Your task to perform on an android device: toggle airplane mode Image 0: 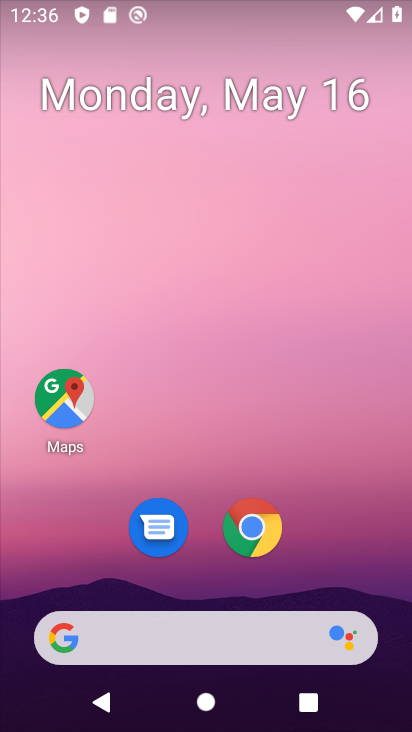
Step 0: drag from (207, 587) to (279, 220)
Your task to perform on an android device: toggle airplane mode Image 1: 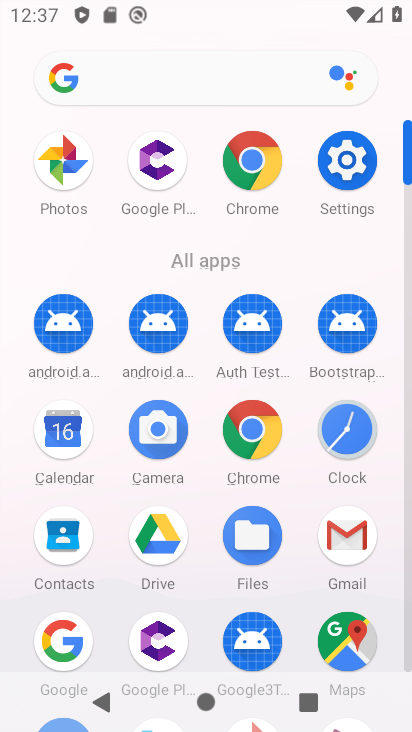
Step 1: click (352, 153)
Your task to perform on an android device: toggle airplane mode Image 2: 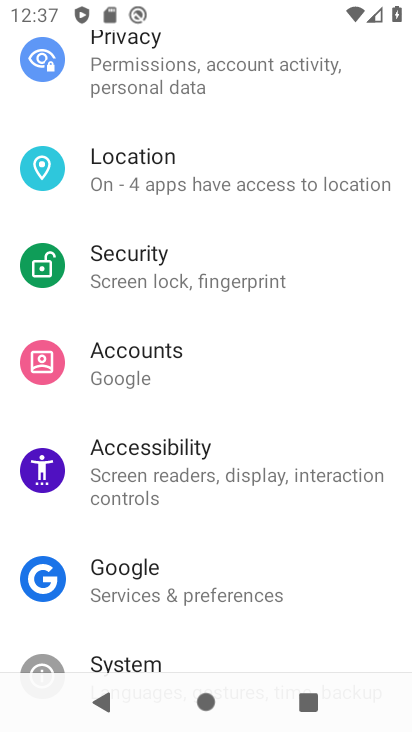
Step 2: drag from (255, 103) to (214, 498)
Your task to perform on an android device: toggle airplane mode Image 3: 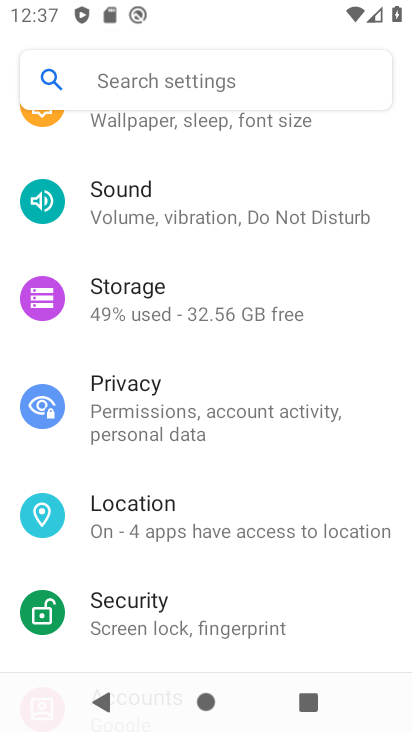
Step 3: drag from (266, 165) to (239, 539)
Your task to perform on an android device: toggle airplane mode Image 4: 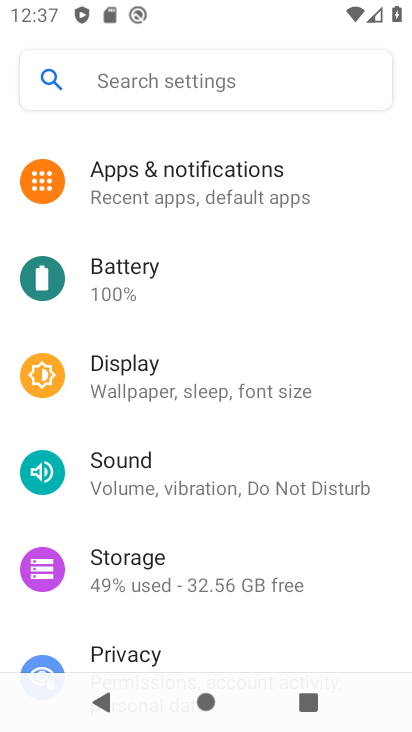
Step 4: drag from (239, 144) to (227, 529)
Your task to perform on an android device: toggle airplane mode Image 5: 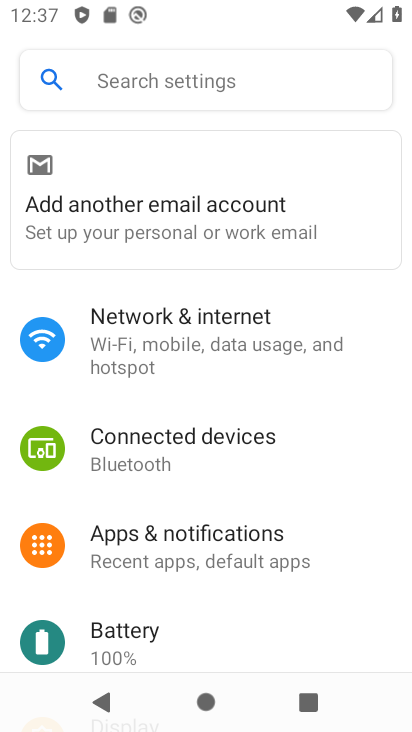
Step 5: click (205, 329)
Your task to perform on an android device: toggle airplane mode Image 6: 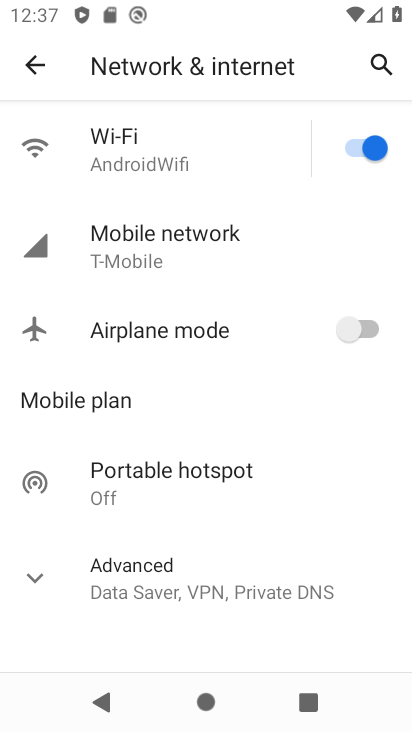
Step 6: click (359, 337)
Your task to perform on an android device: toggle airplane mode Image 7: 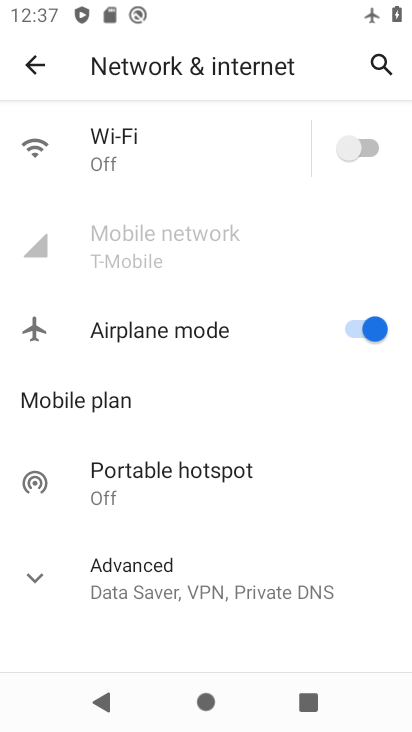
Step 7: click (220, 451)
Your task to perform on an android device: toggle airplane mode Image 8: 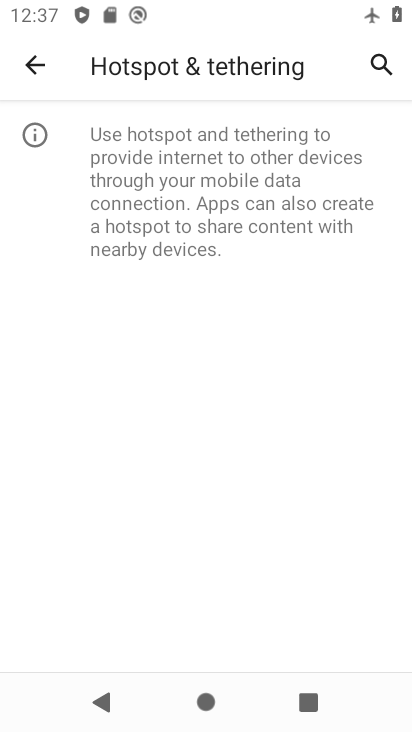
Step 8: task complete